Your task to perform on an android device: change the upload size in google photos Image 0: 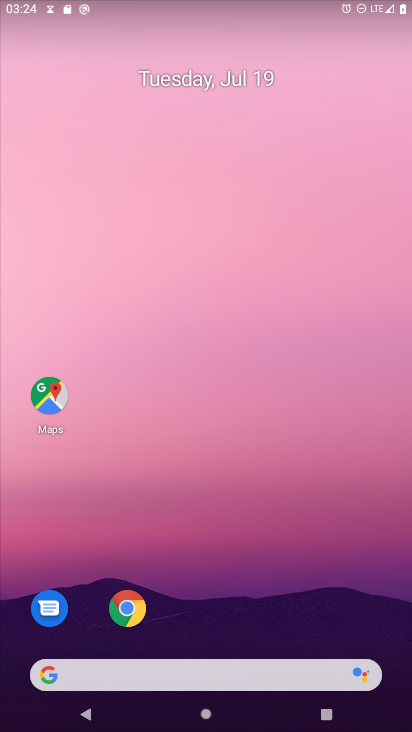
Step 0: drag from (215, 684) to (247, 253)
Your task to perform on an android device: change the upload size in google photos Image 1: 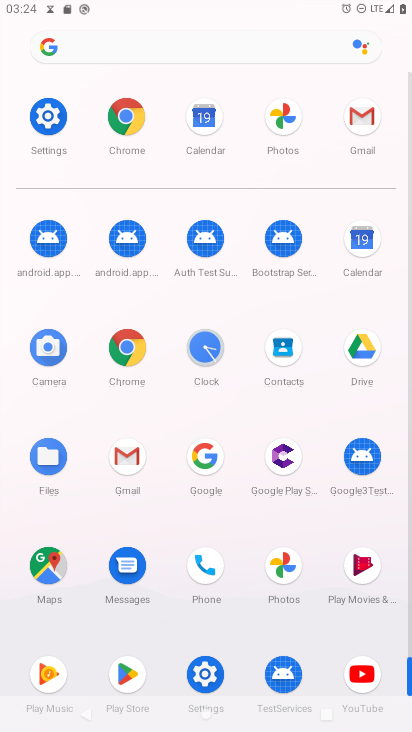
Step 1: click (287, 568)
Your task to perform on an android device: change the upload size in google photos Image 2: 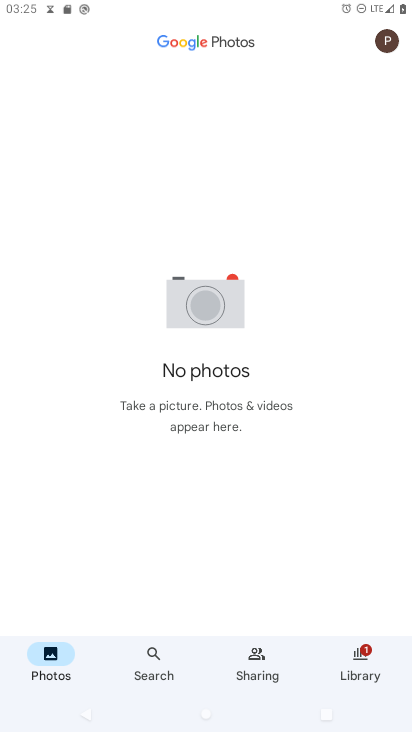
Step 2: click (381, 38)
Your task to perform on an android device: change the upload size in google photos Image 3: 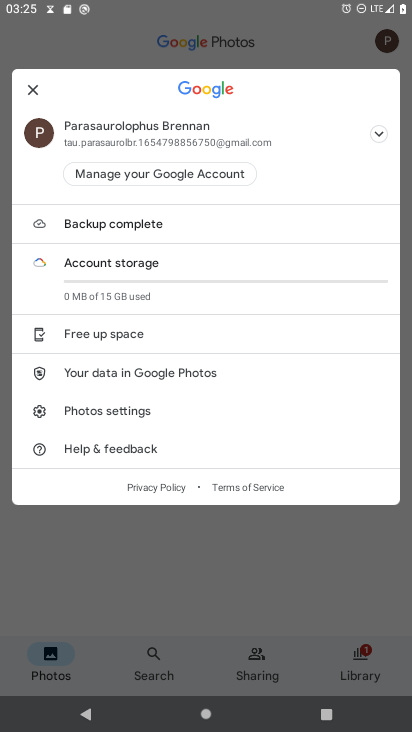
Step 3: click (136, 411)
Your task to perform on an android device: change the upload size in google photos Image 4: 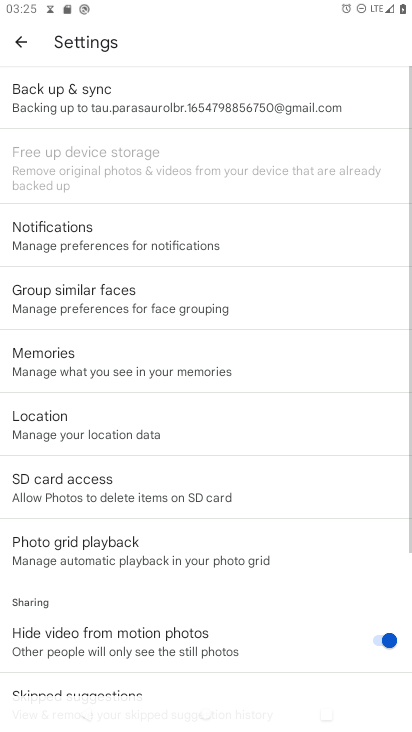
Step 4: click (91, 103)
Your task to perform on an android device: change the upload size in google photos Image 5: 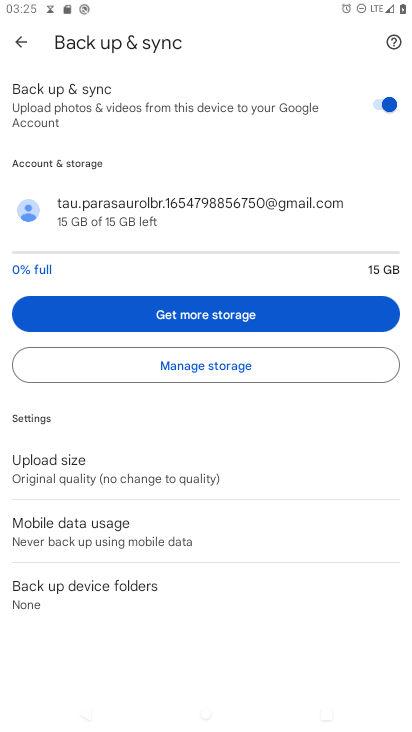
Step 5: click (118, 468)
Your task to perform on an android device: change the upload size in google photos Image 6: 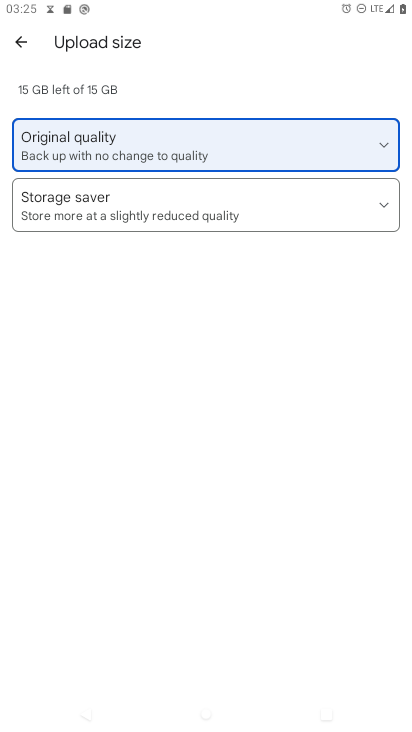
Step 6: click (87, 214)
Your task to perform on an android device: change the upload size in google photos Image 7: 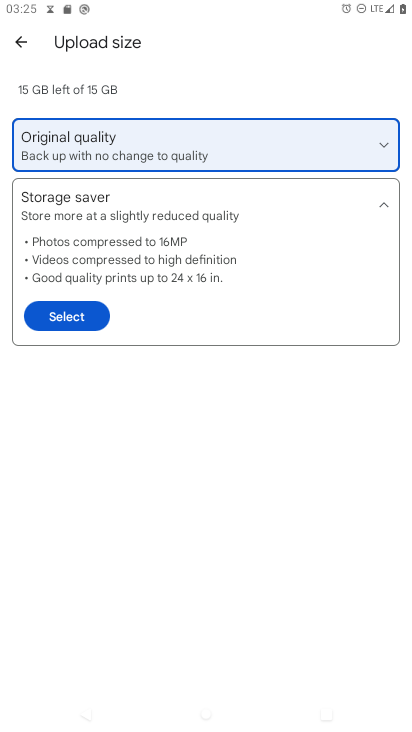
Step 7: click (78, 316)
Your task to perform on an android device: change the upload size in google photos Image 8: 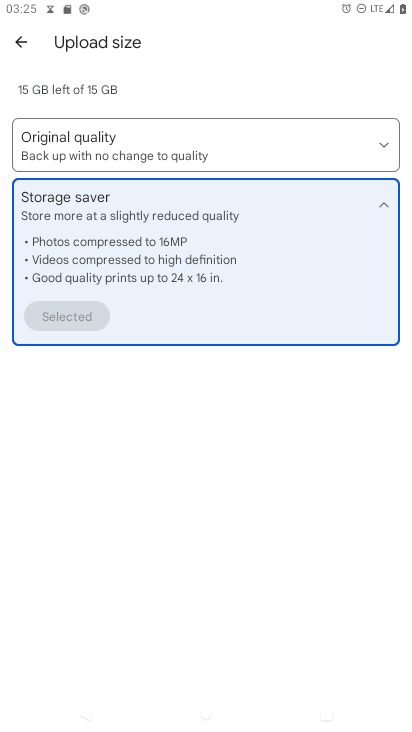
Step 8: task complete